Your task to perform on an android device: Empty the shopping cart on ebay. Add alienware aurora to the cart on ebay Image 0: 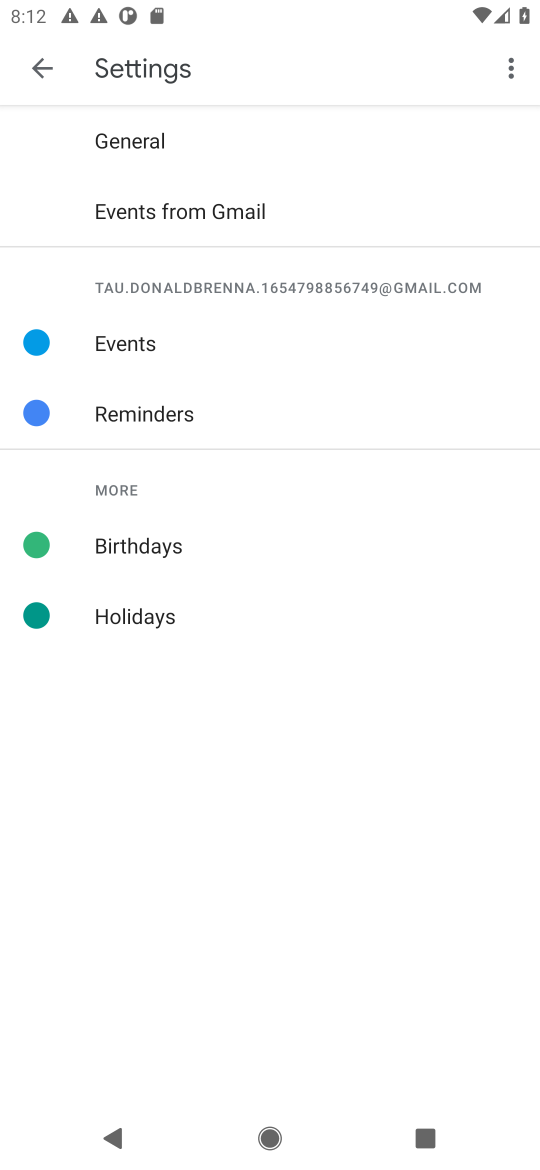
Step 0: press home button
Your task to perform on an android device: Empty the shopping cart on ebay. Add alienware aurora to the cart on ebay Image 1: 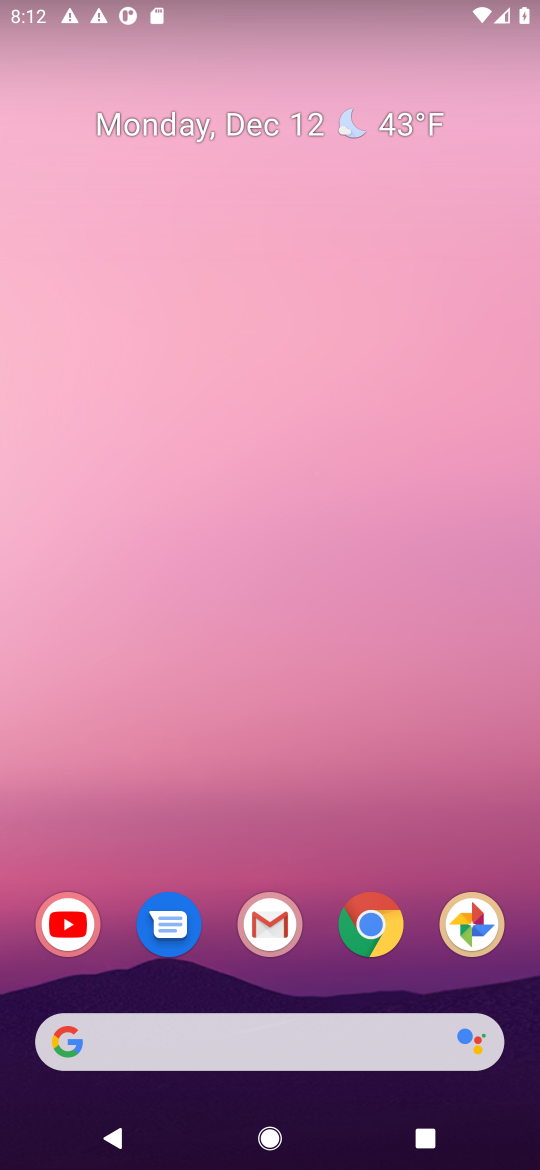
Step 1: click (234, 1029)
Your task to perform on an android device: Empty the shopping cart on ebay. Add alienware aurora to the cart on ebay Image 2: 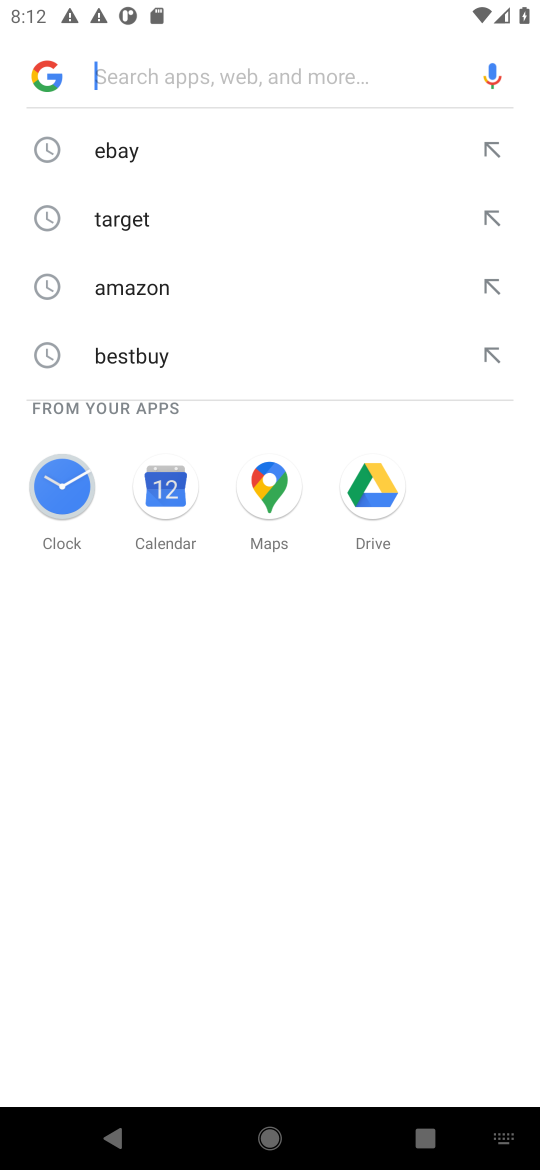
Step 2: click (111, 148)
Your task to perform on an android device: Empty the shopping cart on ebay. Add alienware aurora to the cart on ebay Image 3: 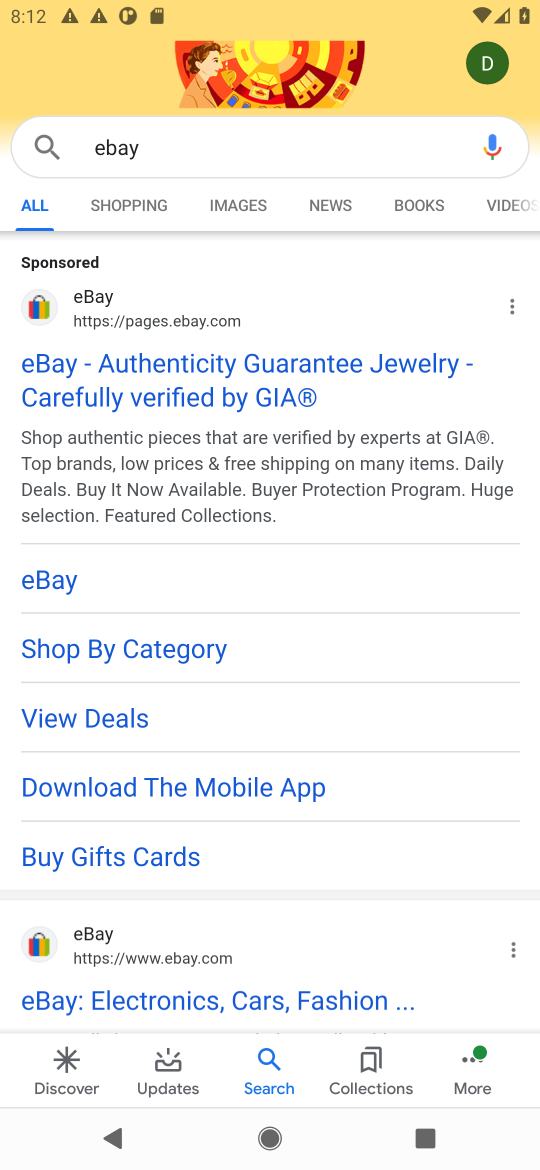
Step 3: click (132, 326)
Your task to perform on an android device: Empty the shopping cart on ebay. Add alienware aurora to the cart on ebay Image 4: 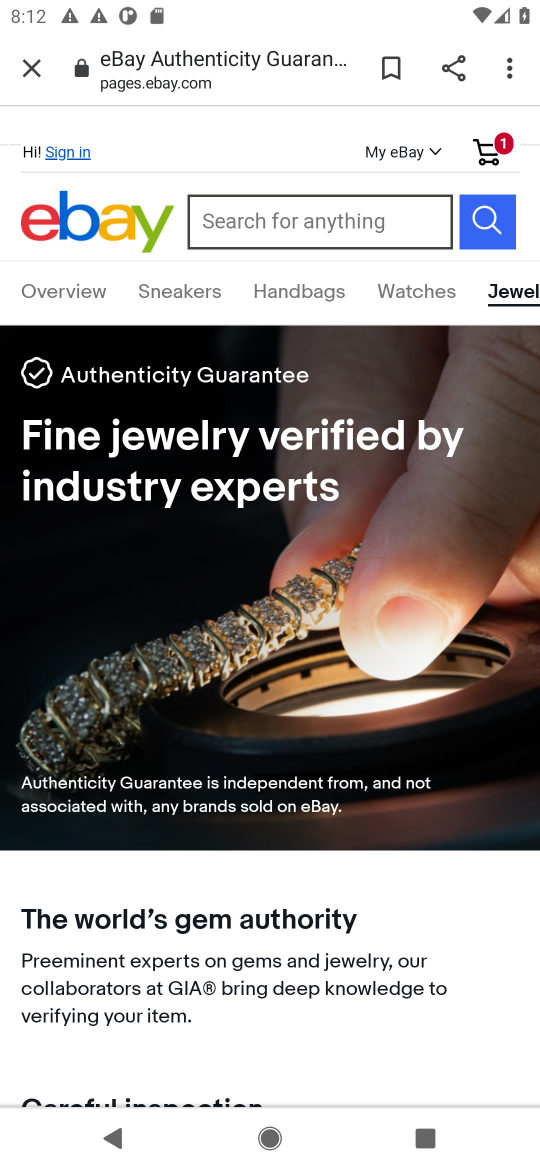
Step 4: click (496, 152)
Your task to perform on an android device: Empty the shopping cart on ebay. Add alienware aurora to the cart on ebay Image 5: 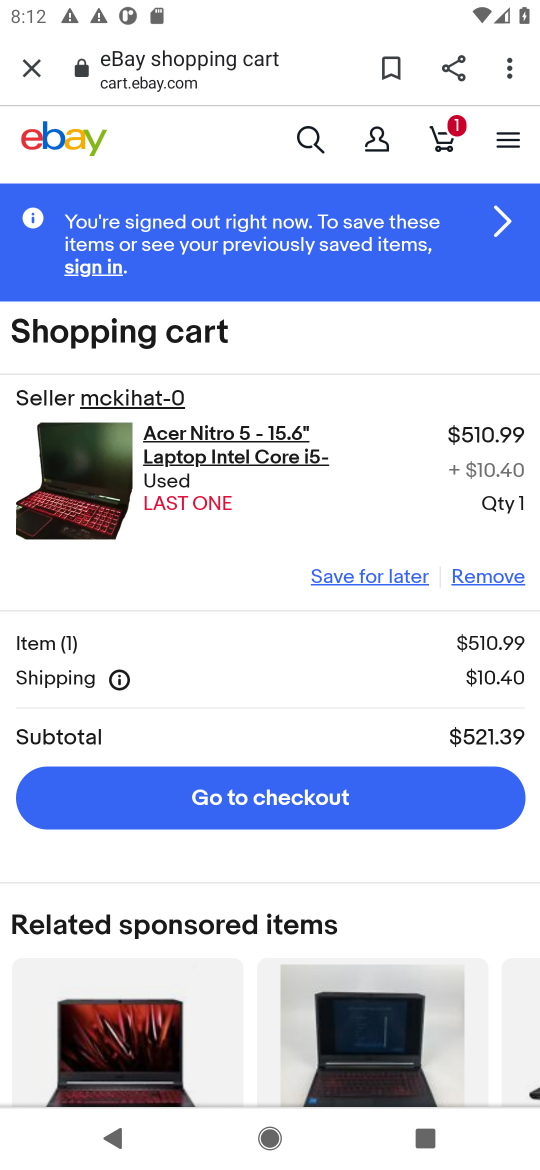
Step 5: click (473, 571)
Your task to perform on an android device: Empty the shopping cart on ebay. Add alienware aurora to the cart on ebay Image 6: 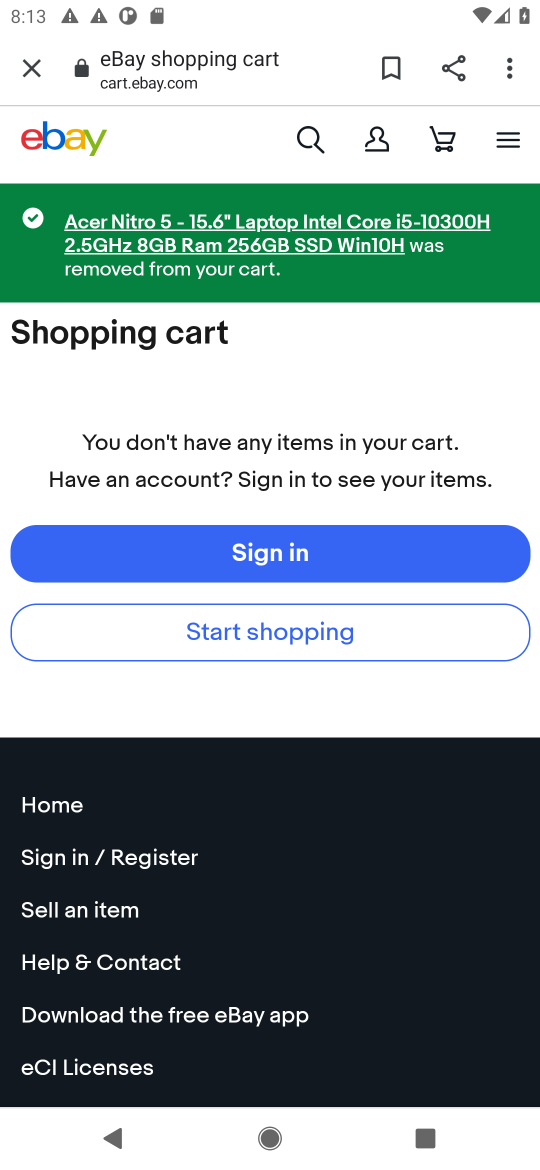
Step 6: click (271, 139)
Your task to perform on an android device: Empty the shopping cart on ebay. Add alienware aurora to the cart on ebay Image 7: 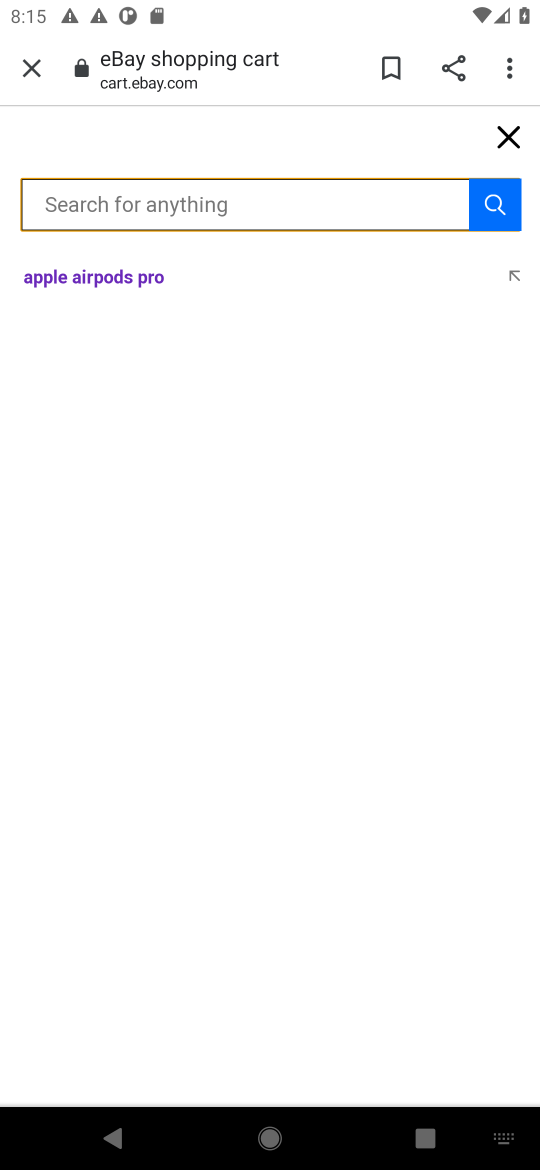
Step 7: click (244, 214)
Your task to perform on an android device: Empty the shopping cart on ebay. Add alienware aurora to the cart on ebay Image 8: 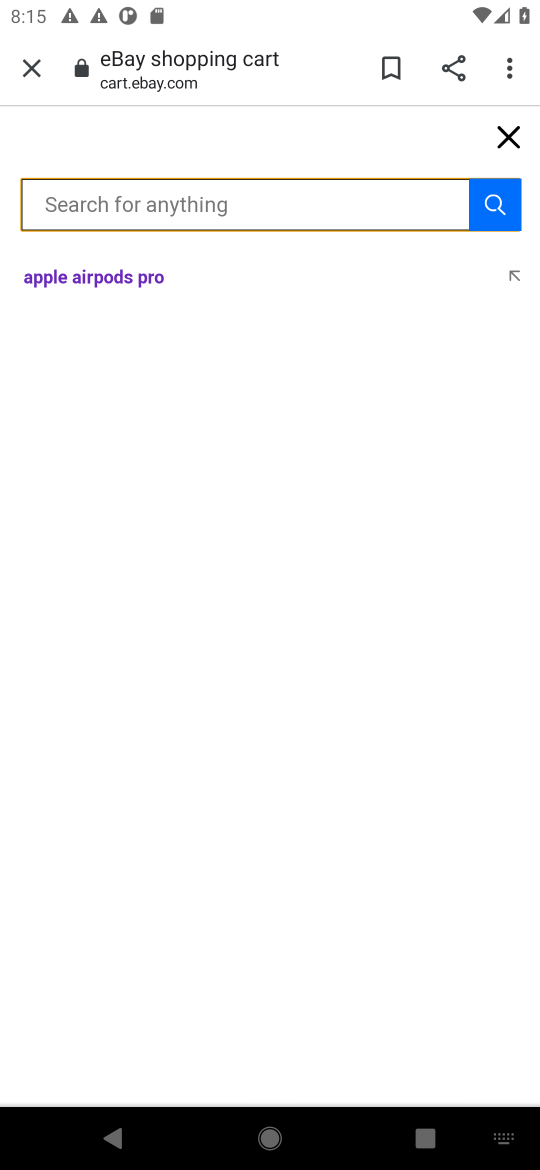
Step 8: type "alienware aurora"
Your task to perform on an android device: Empty the shopping cart on ebay. Add alienware aurora to the cart on ebay Image 9: 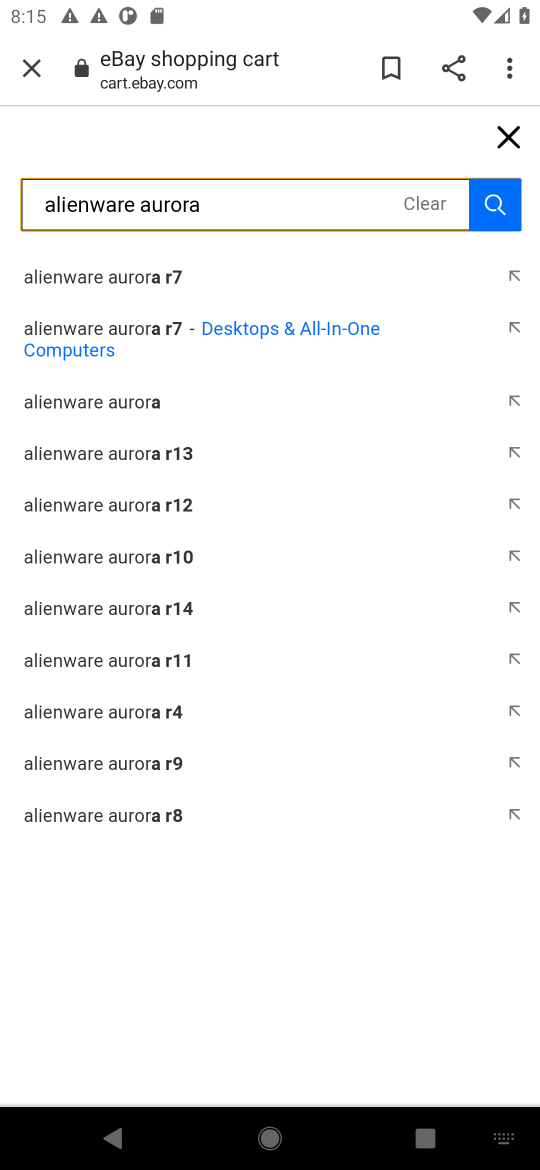
Step 9: click (152, 403)
Your task to perform on an android device: Empty the shopping cart on ebay. Add alienware aurora to the cart on ebay Image 10: 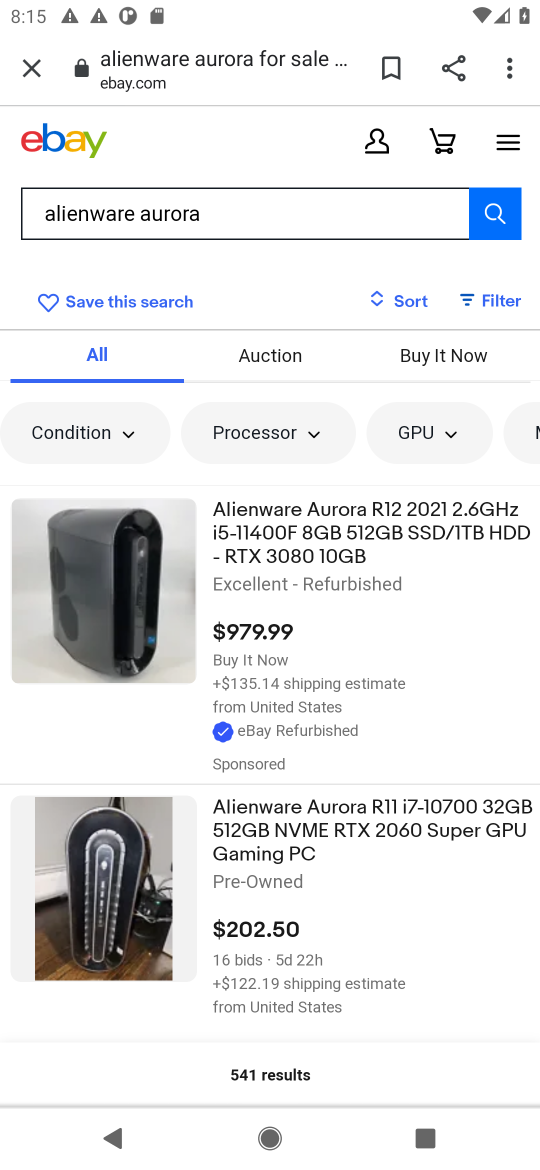
Step 10: click (275, 578)
Your task to perform on an android device: Empty the shopping cart on ebay. Add alienware aurora to the cart on ebay Image 11: 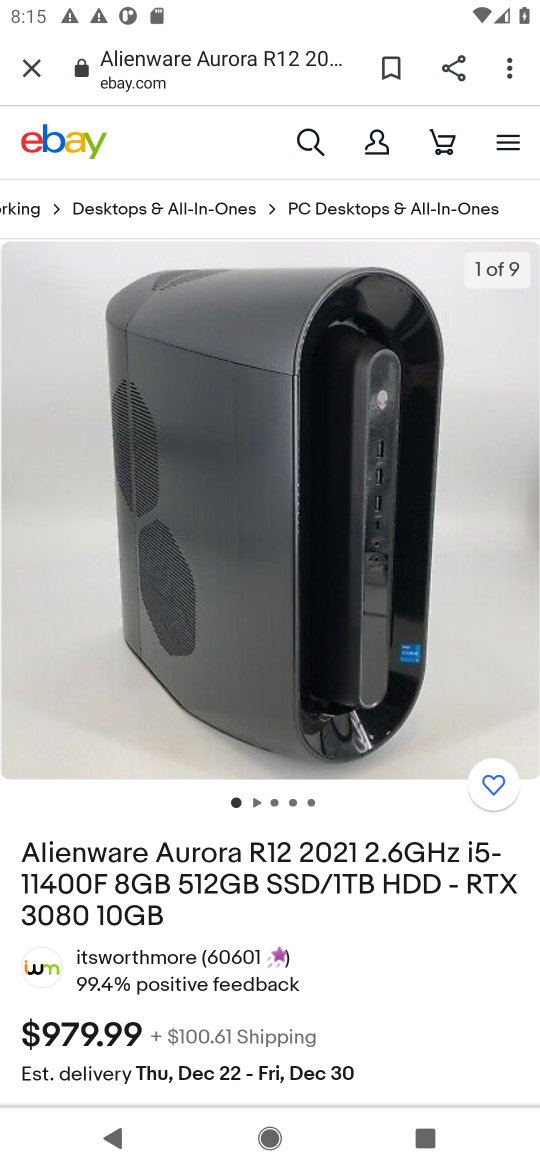
Step 11: drag from (300, 788) to (325, 668)
Your task to perform on an android device: Empty the shopping cart on ebay. Add alienware aurora to the cart on ebay Image 12: 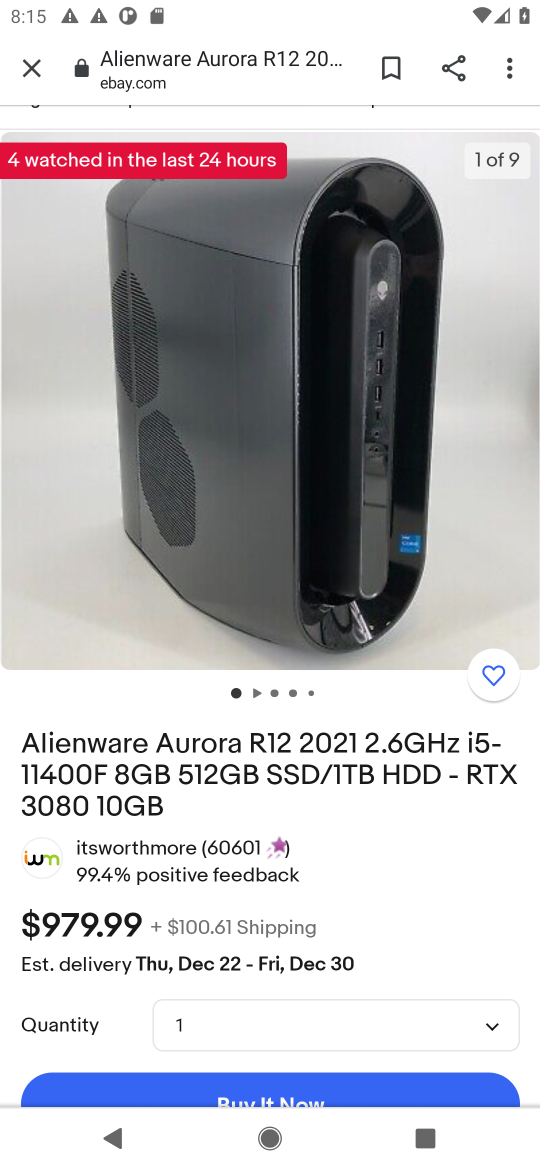
Step 12: drag from (374, 880) to (382, 588)
Your task to perform on an android device: Empty the shopping cart on ebay. Add alienware aurora to the cart on ebay Image 13: 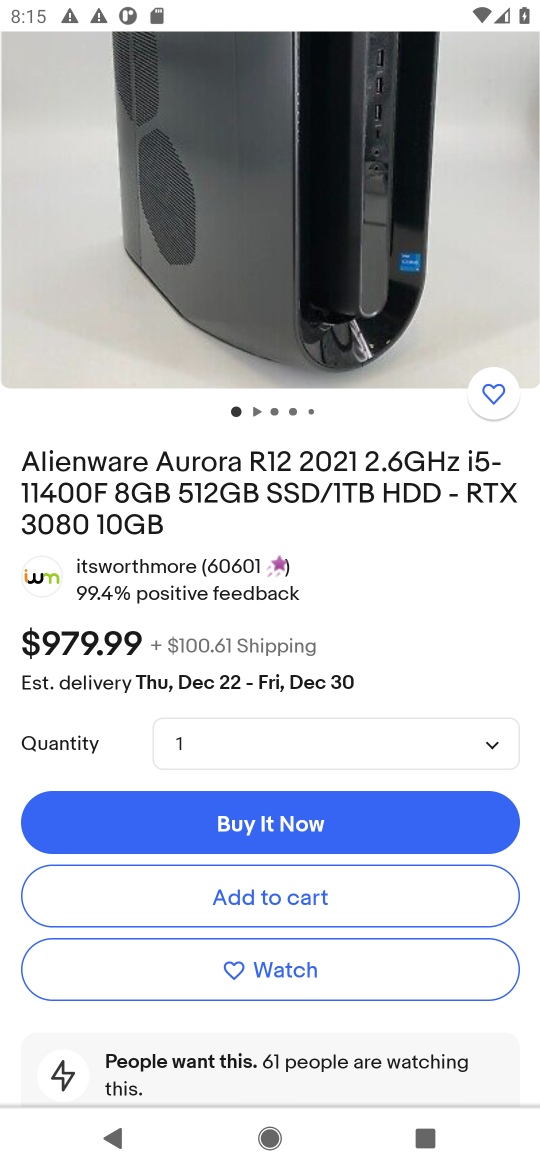
Step 13: click (278, 886)
Your task to perform on an android device: Empty the shopping cart on ebay. Add alienware aurora to the cart on ebay Image 14: 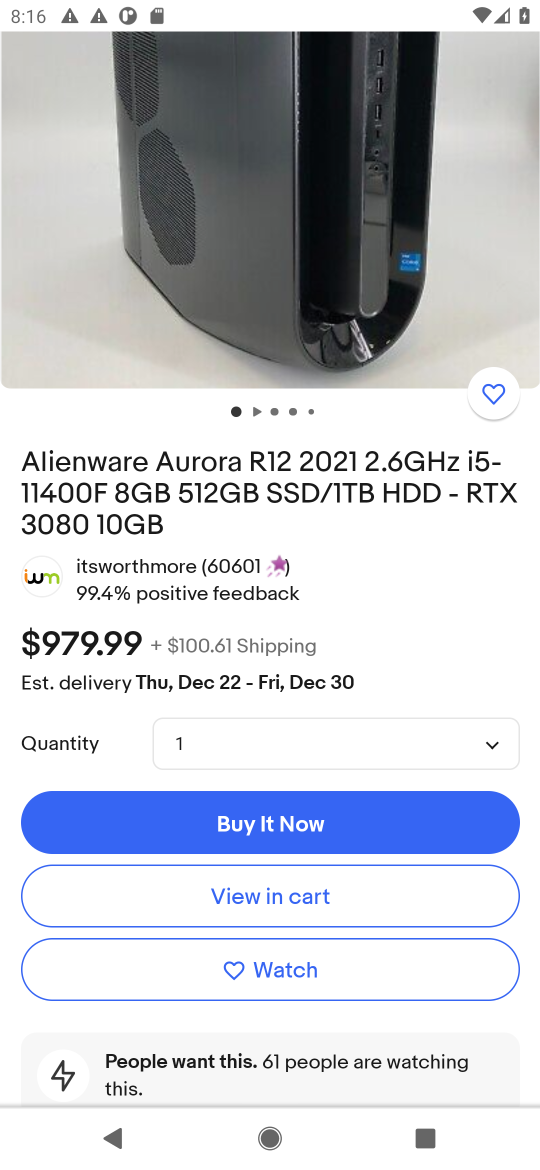
Step 14: task complete